Your task to perform on an android device: turn pop-ups on in chrome Image 0: 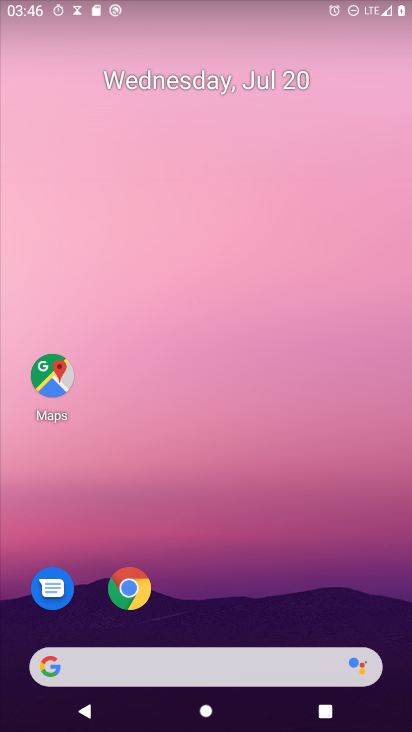
Step 0: click (145, 602)
Your task to perform on an android device: turn pop-ups on in chrome Image 1: 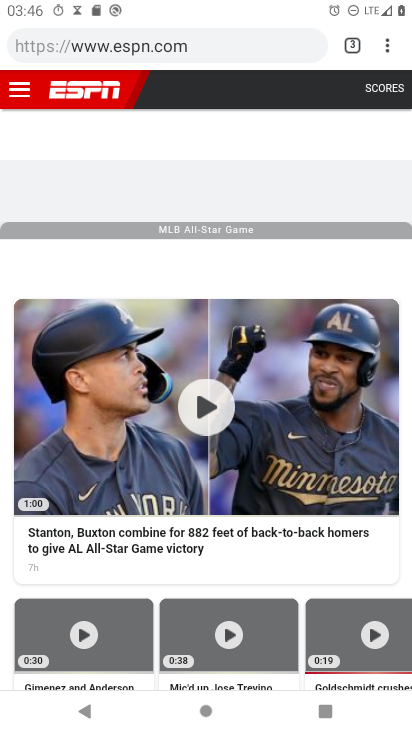
Step 1: click (386, 52)
Your task to perform on an android device: turn pop-ups on in chrome Image 2: 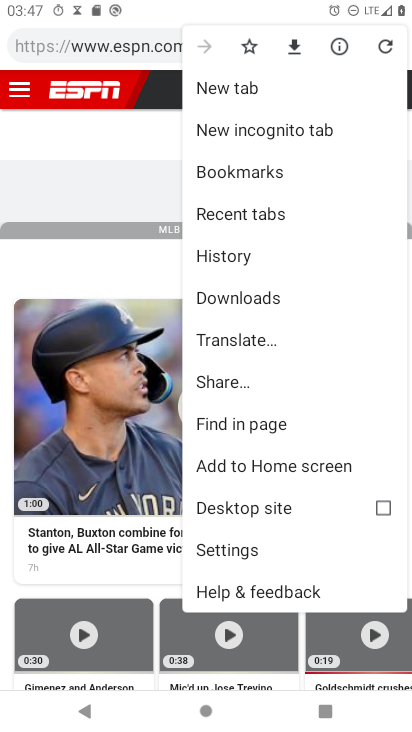
Step 2: click (216, 538)
Your task to perform on an android device: turn pop-ups on in chrome Image 3: 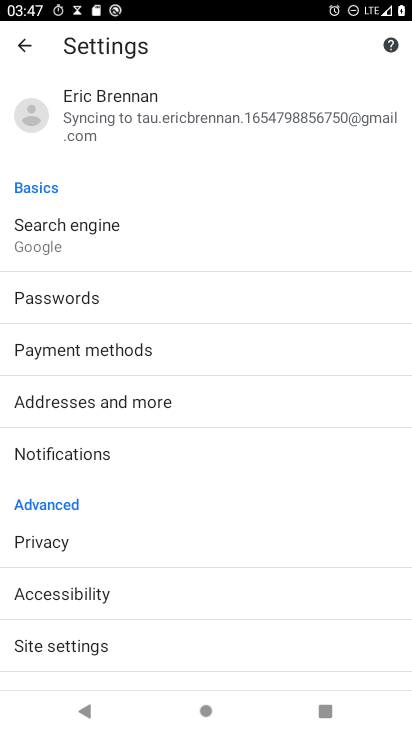
Step 3: click (67, 631)
Your task to perform on an android device: turn pop-ups on in chrome Image 4: 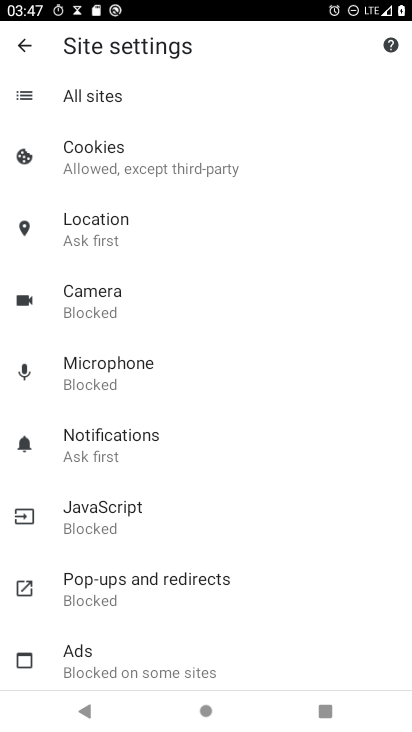
Step 4: click (115, 591)
Your task to perform on an android device: turn pop-ups on in chrome Image 5: 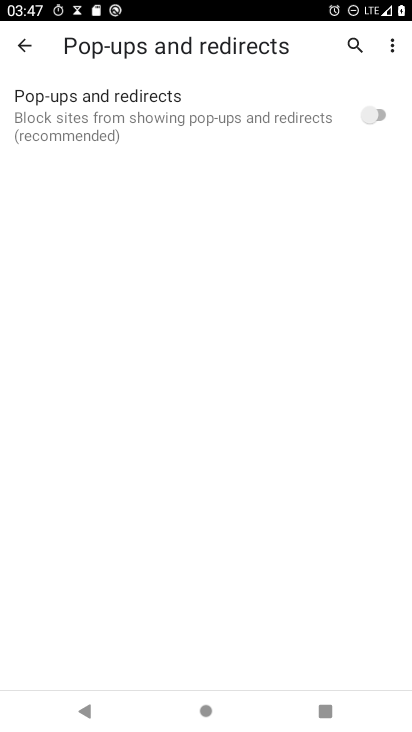
Step 5: click (375, 121)
Your task to perform on an android device: turn pop-ups on in chrome Image 6: 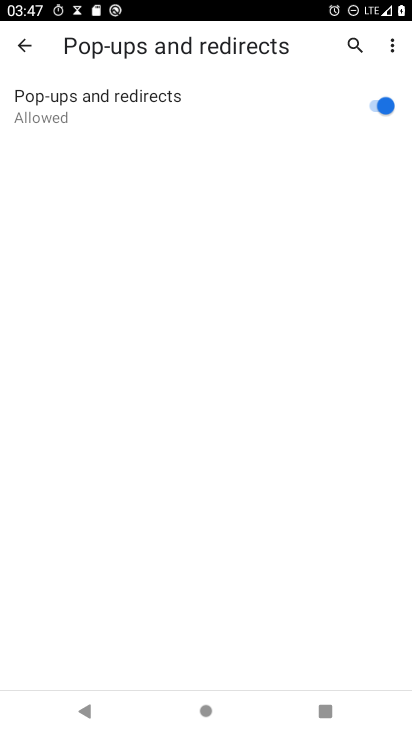
Step 6: task complete